Your task to perform on an android device: What's the weather going to be tomorrow? Image 0: 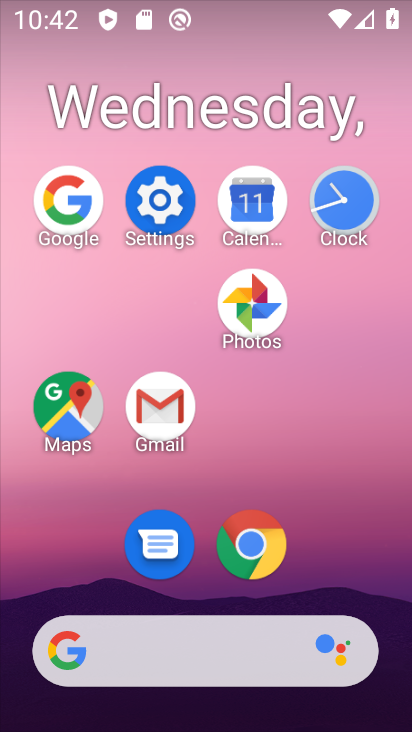
Step 0: click (77, 195)
Your task to perform on an android device: What's the weather going to be tomorrow? Image 1: 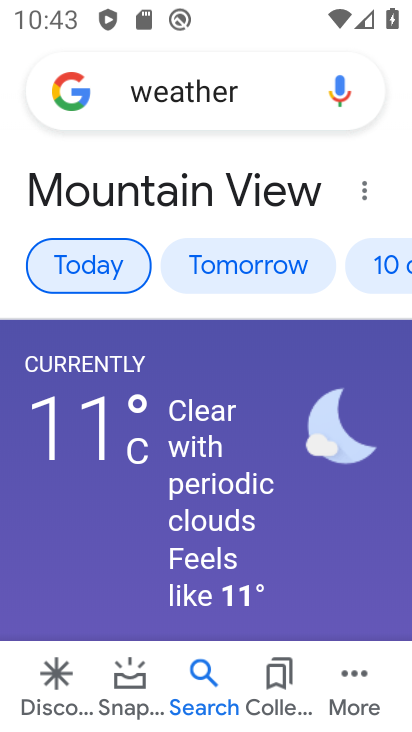
Step 1: click (248, 248)
Your task to perform on an android device: What's the weather going to be tomorrow? Image 2: 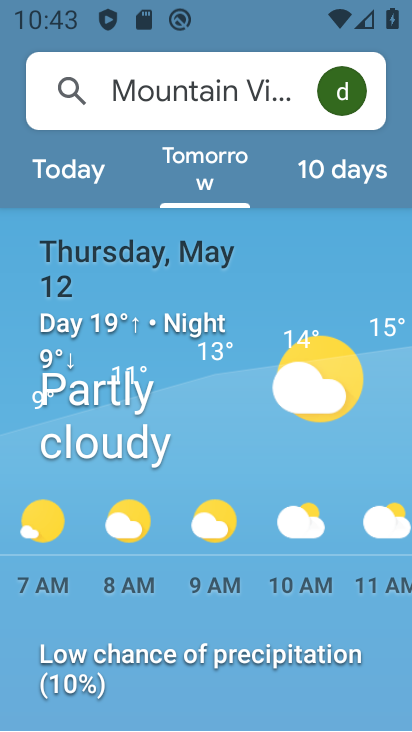
Step 2: task complete